Your task to perform on an android device: Search for Mexican restaurants on Maps Image 0: 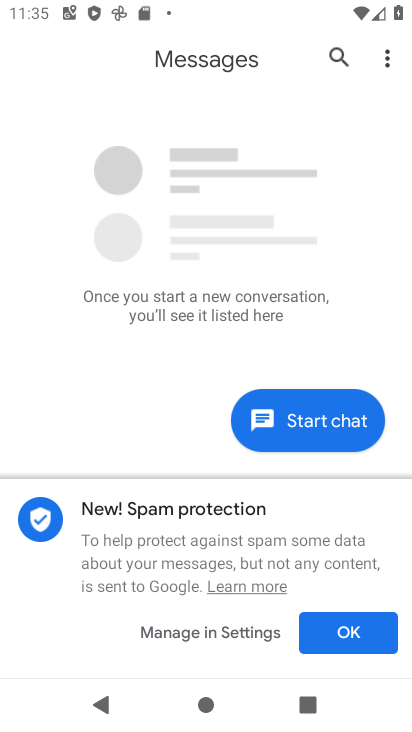
Step 0: press home button
Your task to perform on an android device: Search for Mexican restaurants on Maps Image 1: 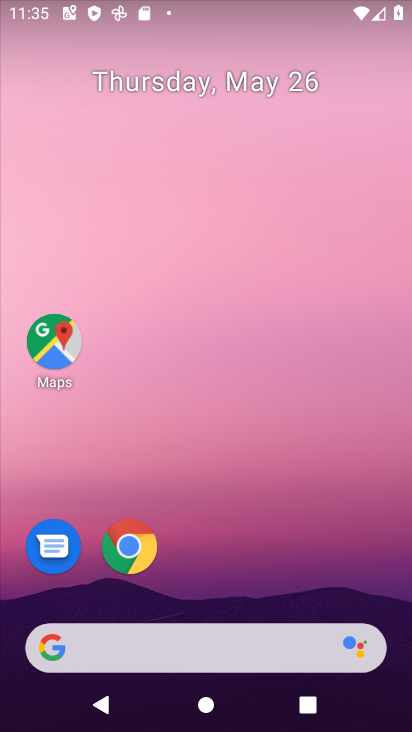
Step 1: click (54, 346)
Your task to perform on an android device: Search for Mexican restaurants on Maps Image 2: 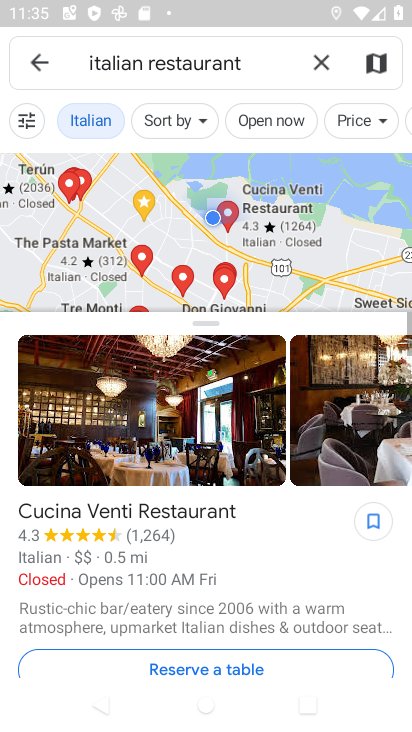
Step 2: click (306, 60)
Your task to perform on an android device: Search for Mexican restaurants on Maps Image 3: 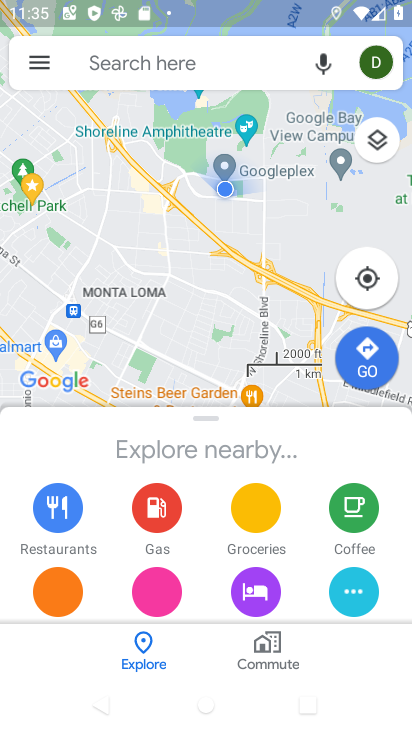
Step 3: click (213, 70)
Your task to perform on an android device: Search for Mexican restaurants on Maps Image 4: 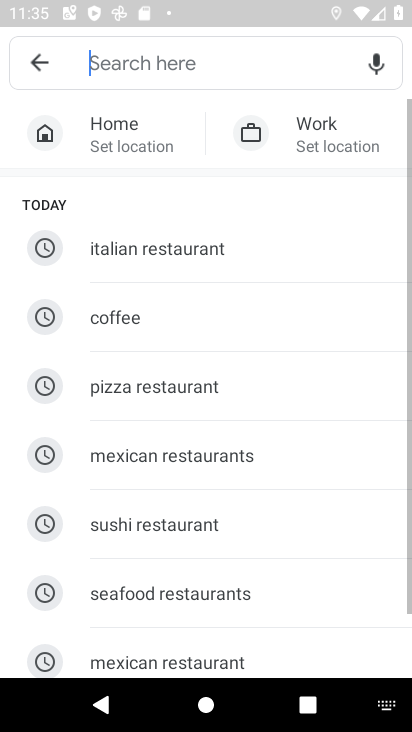
Step 4: click (171, 450)
Your task to perform on an android device: Search for Mexican restaurants on Maps Image 5: 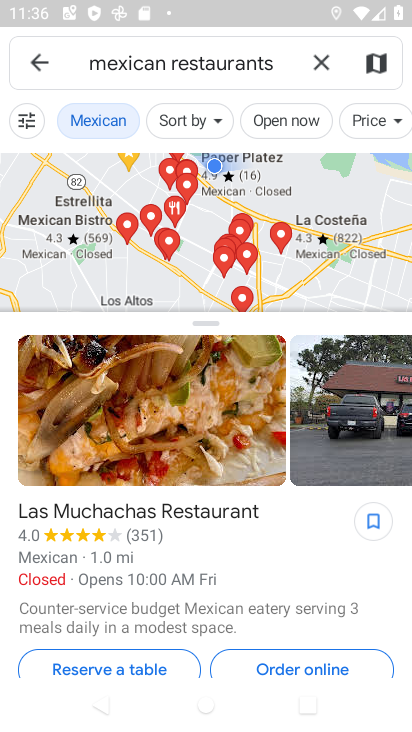
Step 5: task complete